Your task to perform on an android device: stop showing notifications on the lock screen Image 0: 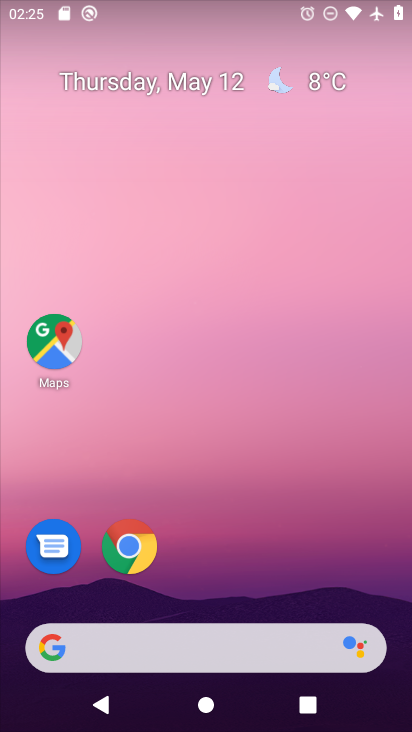
Step 0: drag from (177, 648) to (256, 217)
Your task to perform on an android device: stop showing notifications on the lock screen Image 1: 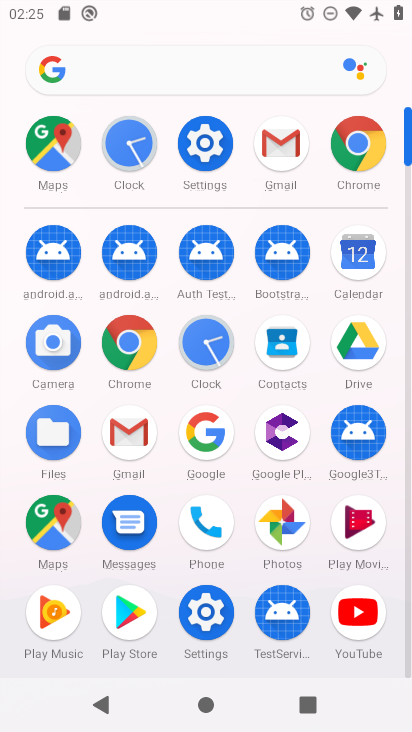
Step 1: click (202, 154)
Your task to perform on an android device: stop showing notifications on the lock screen Image 2: 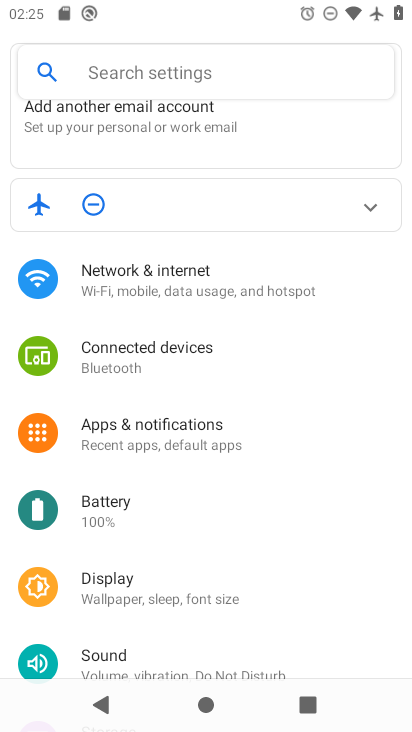
Step 2: click (202, 435)
Your task to perform on an android device: stop showing notifications on the lock screen Image 3: 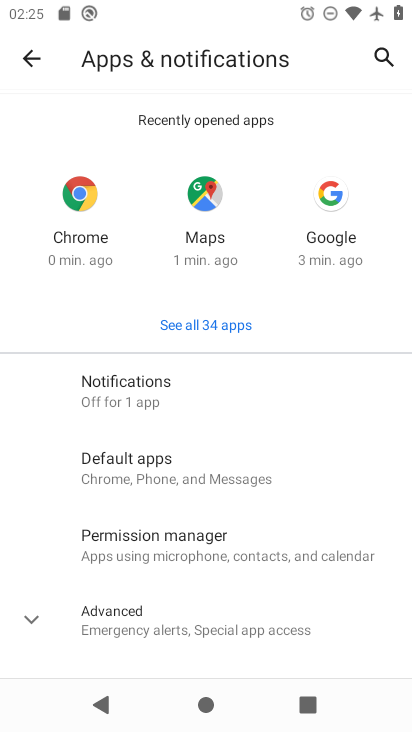
Step 3: click (146, 397)
Your task to perform on an android device: stop showing notifications on the lock screen Image 4: 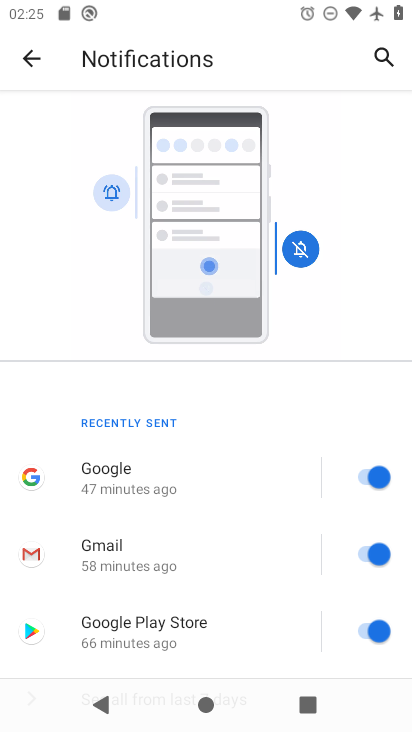
Step 4: drag from (196, 581) to (347, 126)
Your task to perform on an android device: stop showing notifications on the lock screen Image 5: 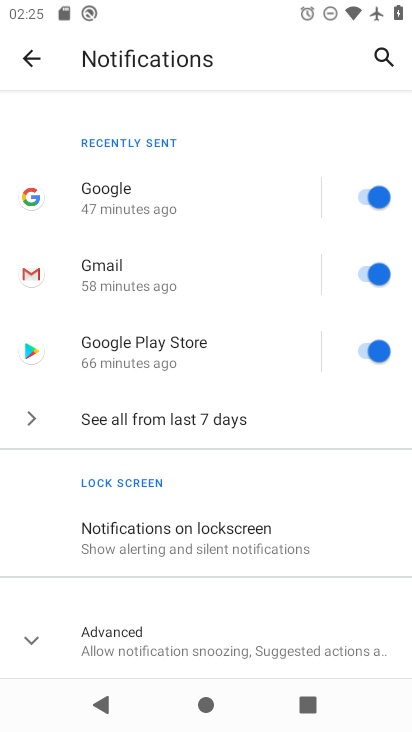
Step 5: click (231, 538)
Your task to perform on an android device: stop showing notifications on the lock screen Image 6: 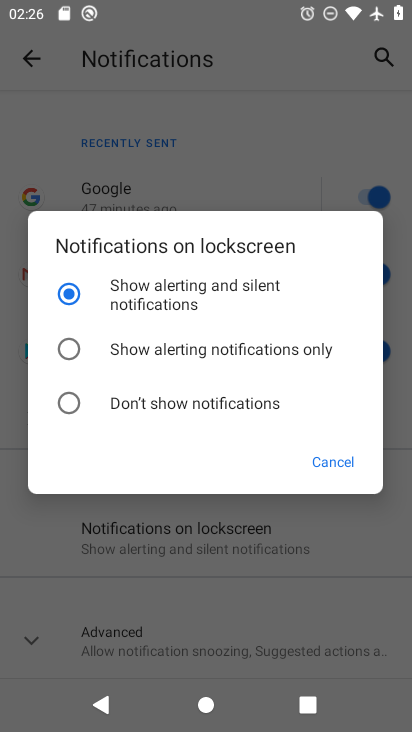
Step 6: click (70, 399)
Your task to perform on an android device: stop showing notifications on the lock screen Image 7: 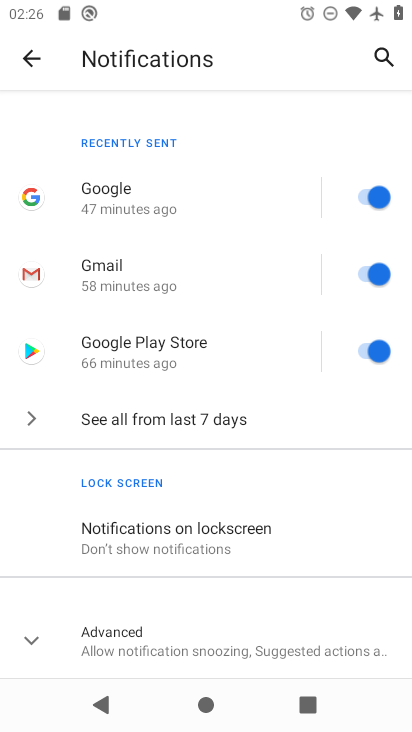
Step 7: task complete